Your task to perform on an android device: What's the weather today? Image 0: 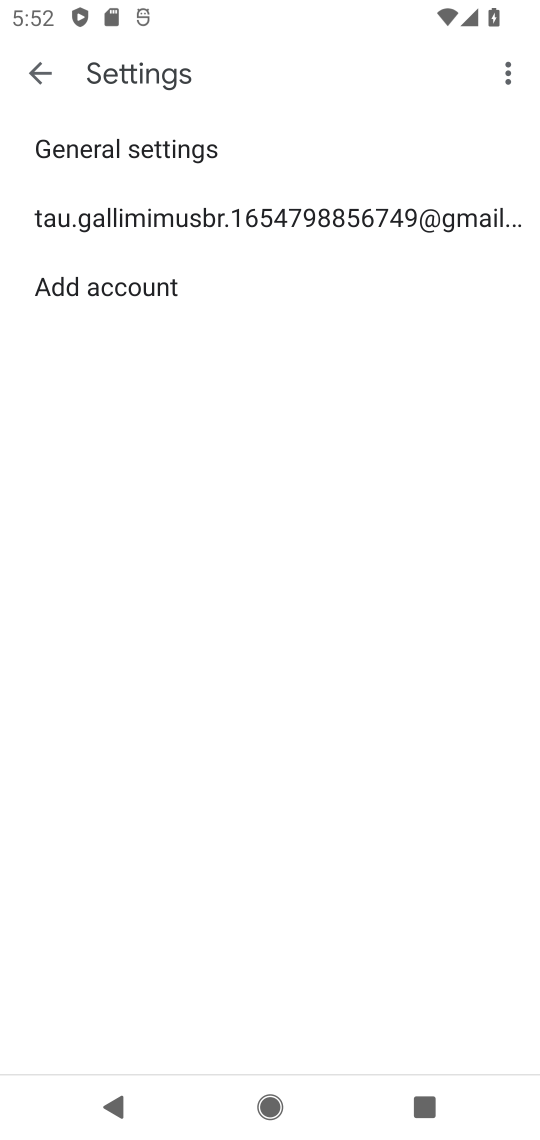
Step 0: press home button
Your task to perform on an android device: What's the weather today? Image 1: 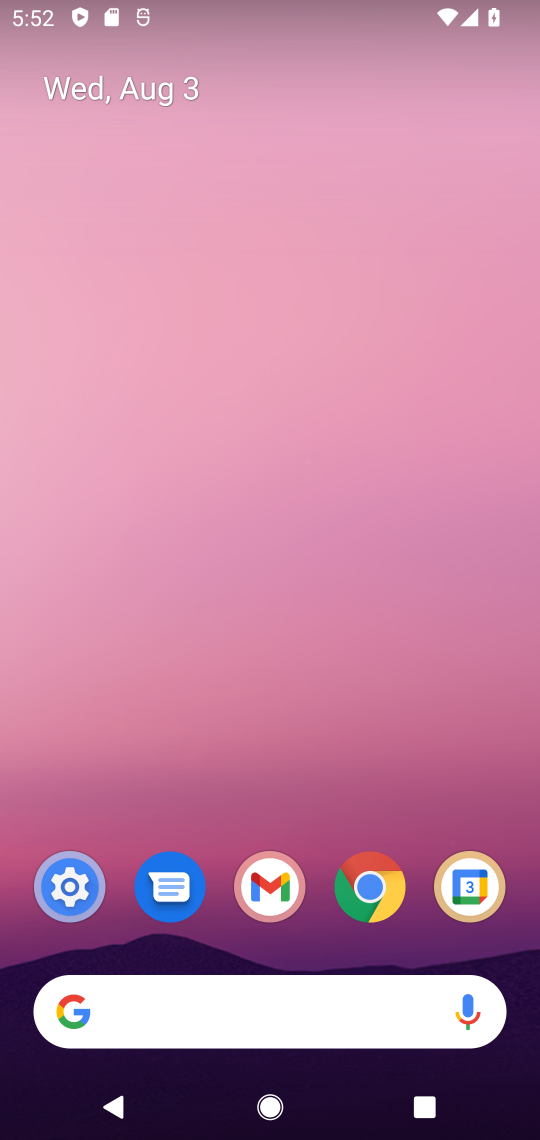
Step 1: drag from (270, 965) to (357, 0)
Your task to perform on an android device: What's the weather today? Image 2: 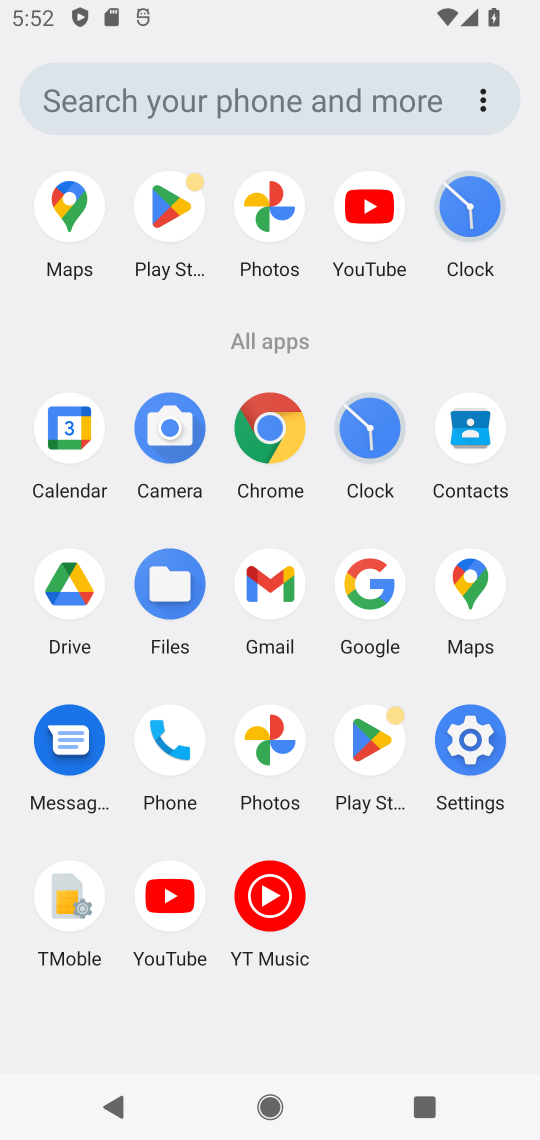
Step 2: click (358, 592)
Your task to perform on an android device: What's the weather today? Image 3: 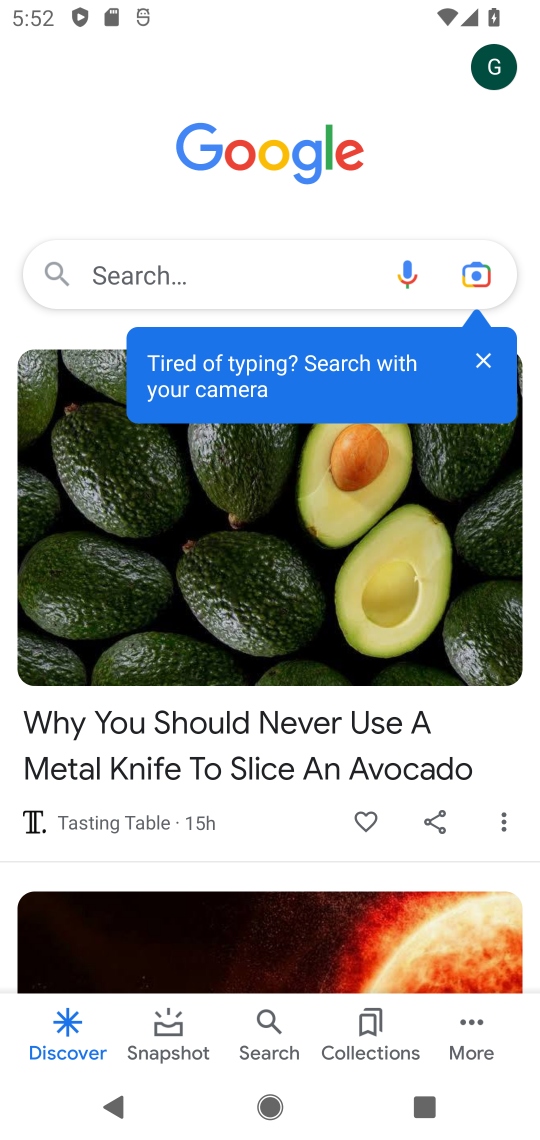
Step 3: click (255, 276)
Your task to perform on an android device: What's the weather today? Image 4: 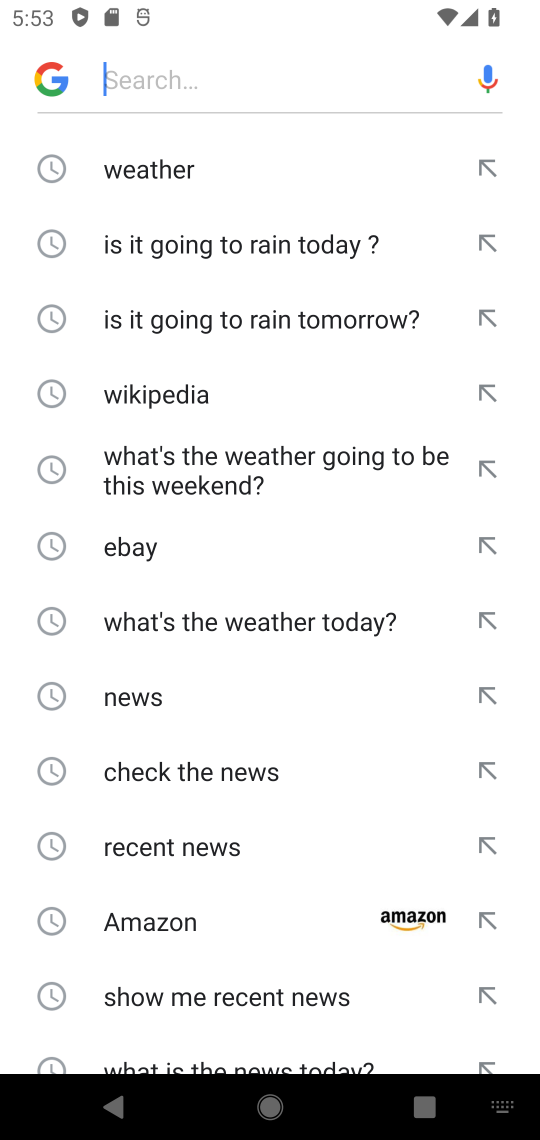
Step 4: click (149, 159)
Your task to perform on an android device: What's the weather today? Image 5: 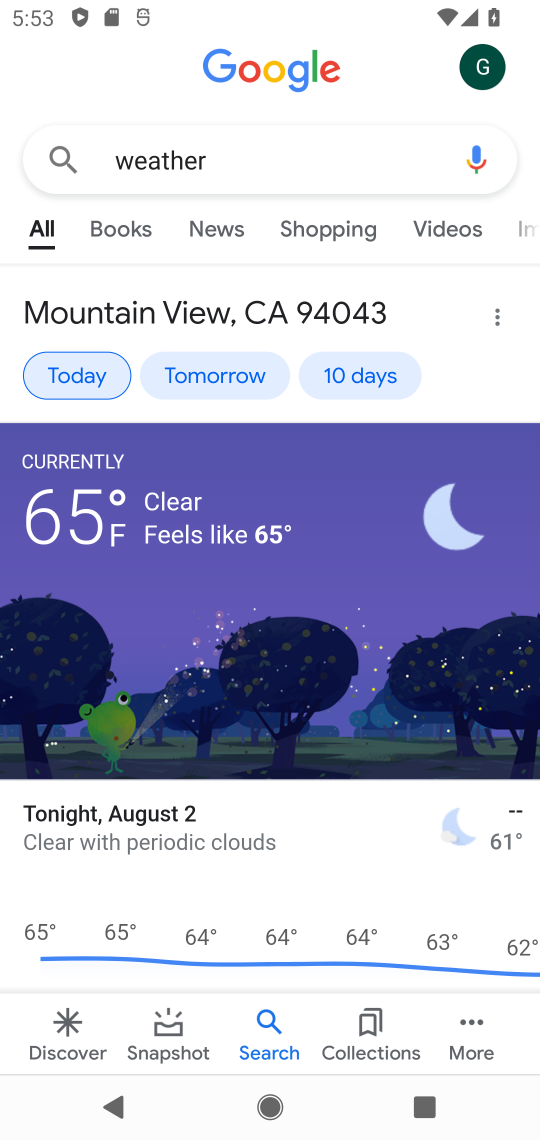
Step 5: task complete